Your task to perform on an android device: Open Google Chrome and click the shortcut for Amazon.com Image 0: 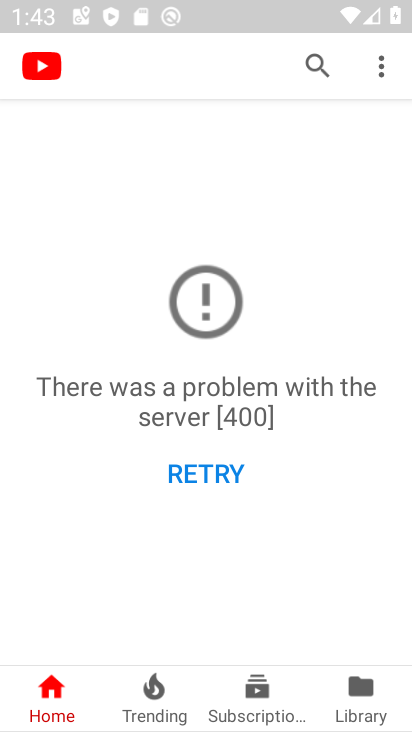
Step 0: press back button
Your task to perform on an android device: Open Google Chrome and click the shortcut for Amazon.com Image 1: 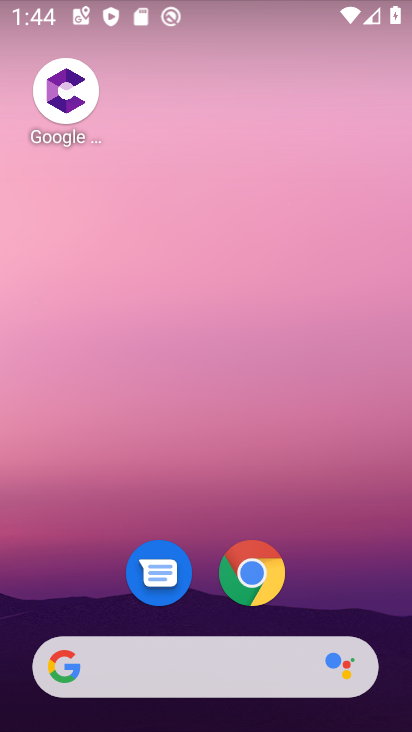
Step 1: click (270, 566)
Your task to perform on an android device: Open Google Chrome and click the shortcut for Amazon.com Image 2: 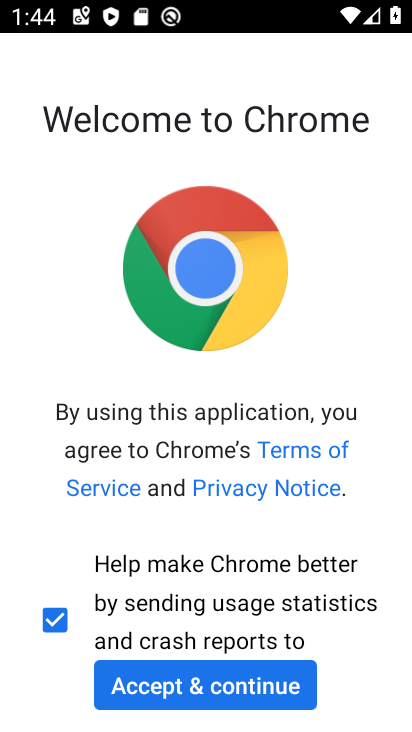
Step 2: click (213, 676)
Your task to perform on an android device: Open Google Chrome and click the shortcut for Amazon.com Image 3: 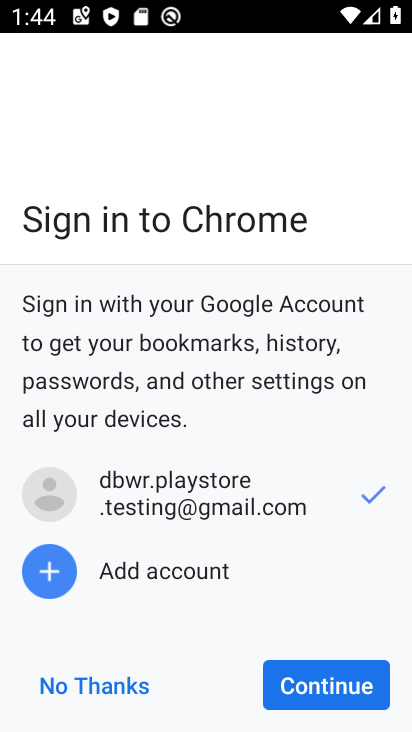
Step 3: click (293, 685)
Your task to perform on an android device: Open Google Chrome and click the shortcut for Amazon.com Image 4: 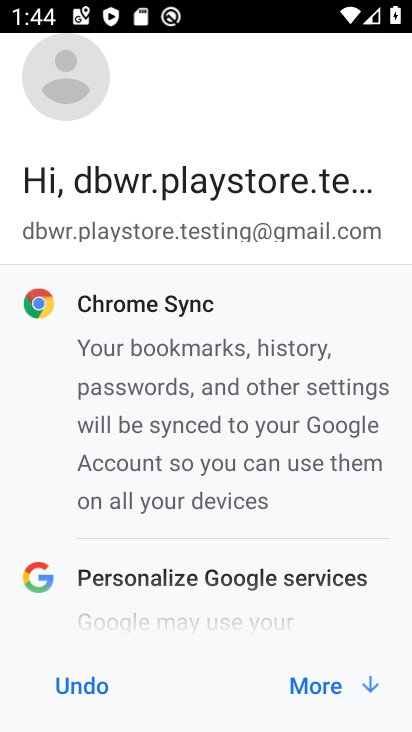
Step 4: click (293, 685)
Your task to perform on an android device: Open Google Chrome and click the shortcut for Amazon.com Image 5: 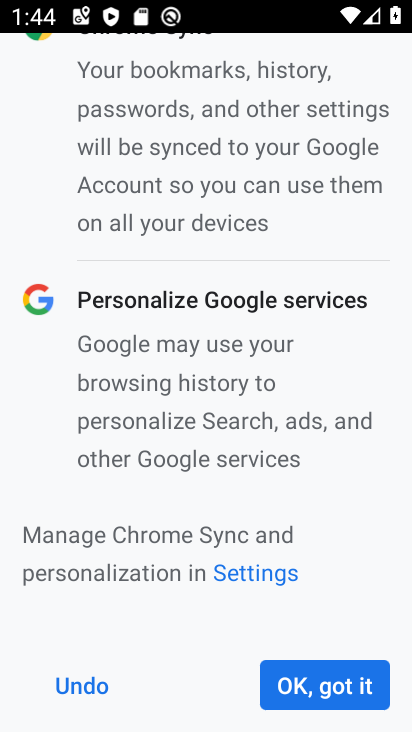
Step 5: click (293, 685)
Your task to perform on an android device: Open Google Chrome and click the shortcut for Amazon.com Image 6: 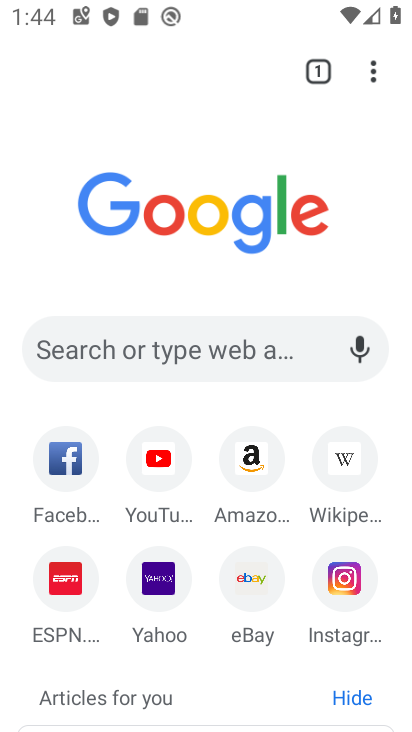
Step 6: click (247, 471)
Your task to perform on an android device: Open Google Chrome and click the shortcut for Amazon.com Image 7: 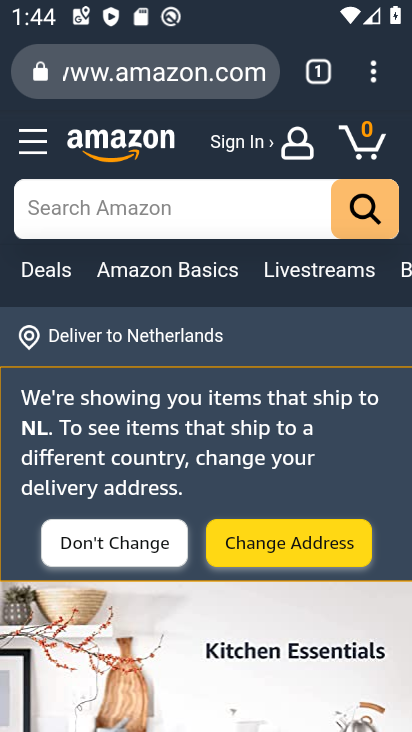
Step 7: task complete